Your task to perform on an android device: turn off airplane mode Image 0: 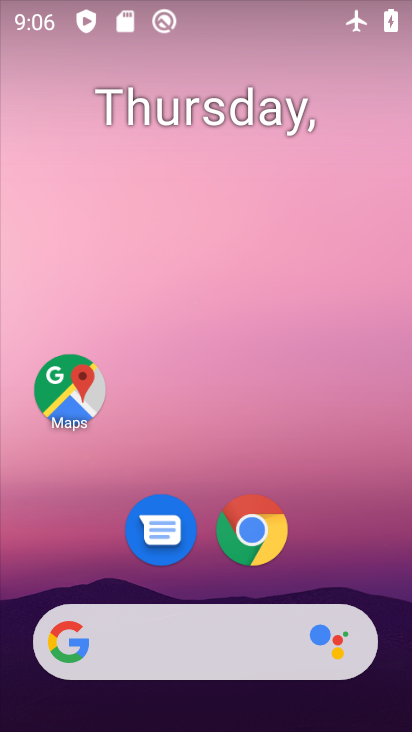
Step 0: drag from (344, 515) to (344, 6)
Your task to perform on an android device: turn off airplane mode Image 1: 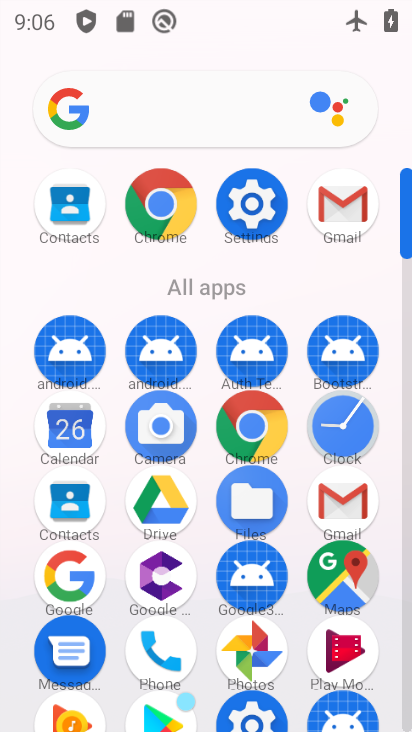
Step 1: click (251, 203)
Your task to perform on an android device: turn off airplane mode Image 2: 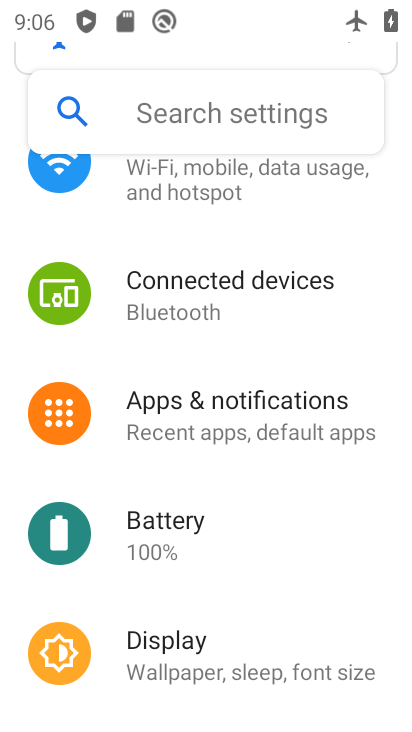
Step 2: drag from (293, 268) to (313, 720)
Your task to perform on an android device: turn off airplane mode Image 3: 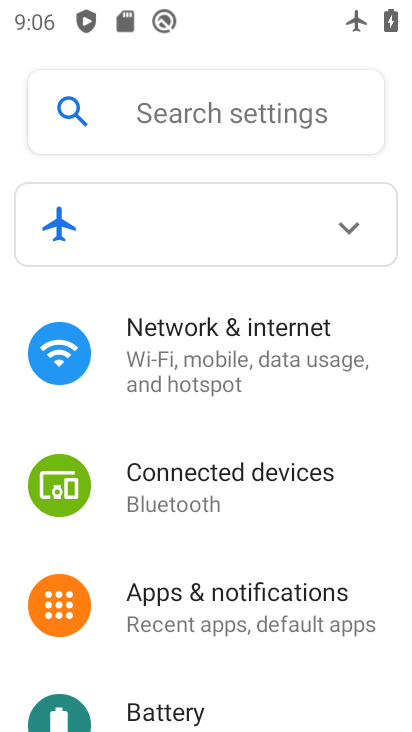
Step 3: click (264, 357)
Your task to perform on an android device: turn off airplane mode Image 4: 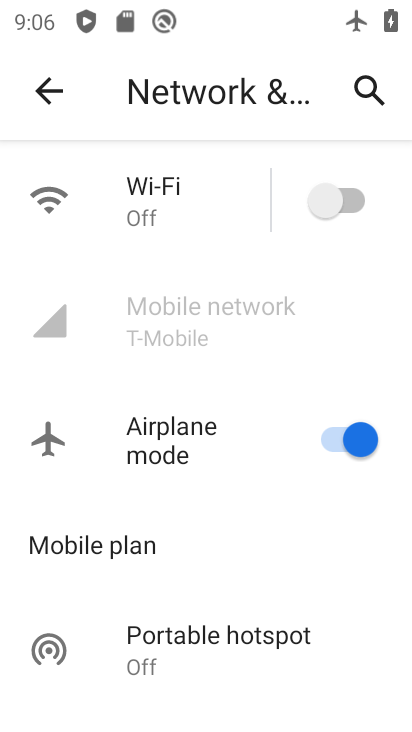
Step 4: click (359, 447)
Your task to perform on an android device: turn off airplane mode Image 5: 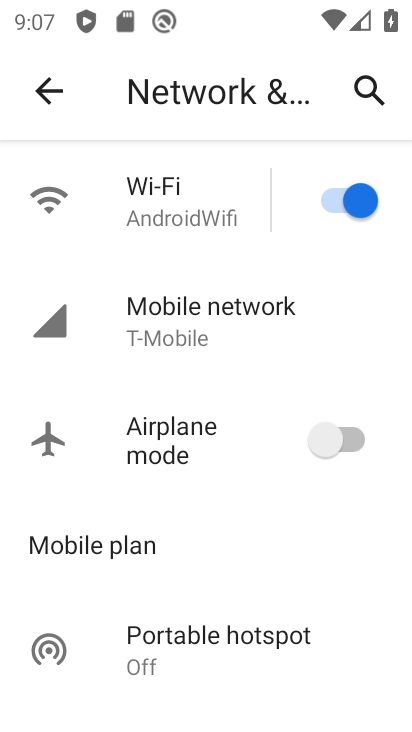
Step 5: task complete